Your task to perform on an android device: Go to ESPN.com Image 0: 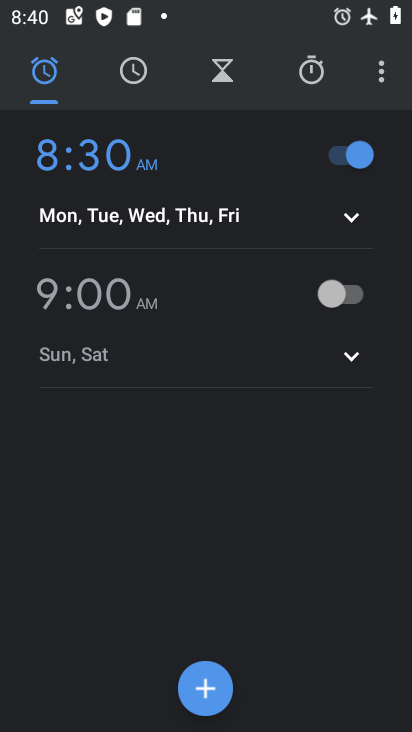
Step 0: press home button
Your task to perform on an android device: Go to ESPN.com Image 1: 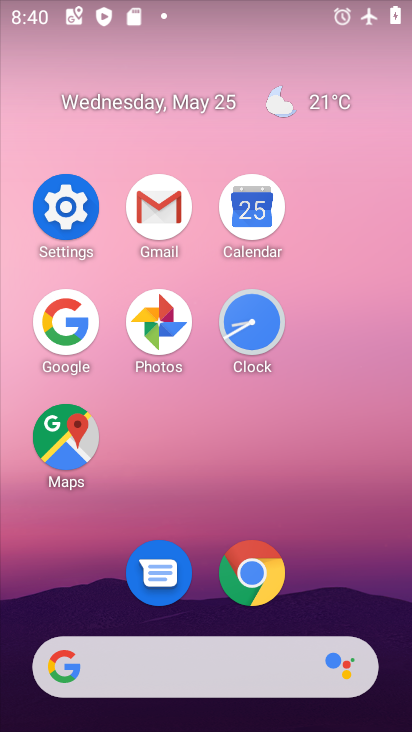
Step 1: click (273, 579)
Your task to perform on an android device: Go to ESPN.com Image 2: 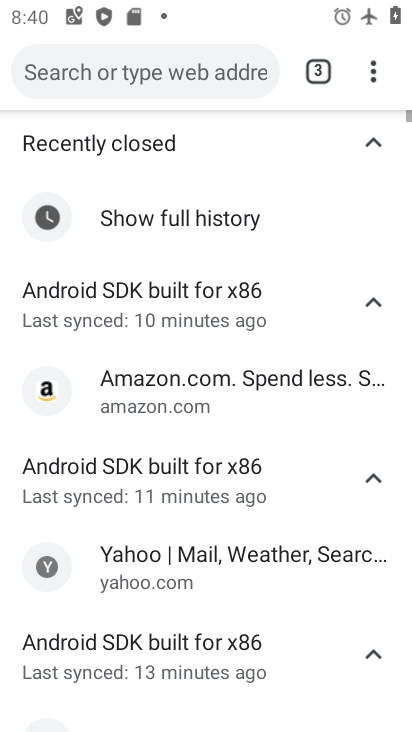
Step 2: click (309, 69)
Your task to perform on an android device: Go to ESPN.com Image 3: 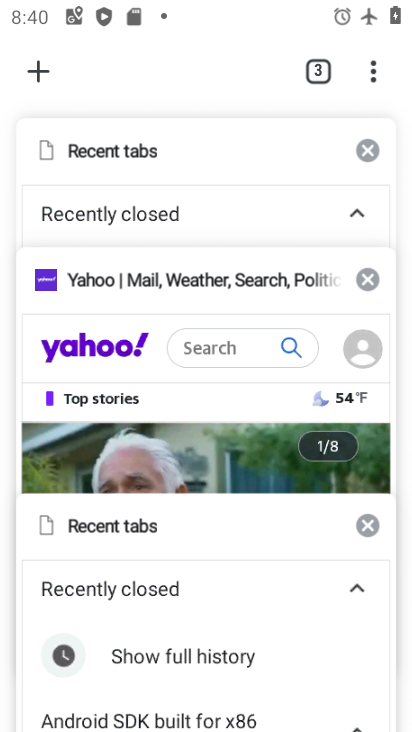
Step 3: click (56, 64)
Your task to perform on an android device: Go to ESPN.com Image 4: 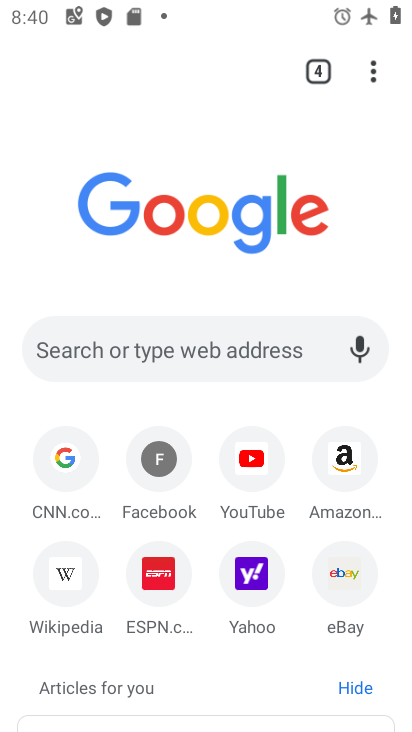
Step 4: click (169, 598)
Your task to perform on an android device: Go to ESPN.com Image 5: 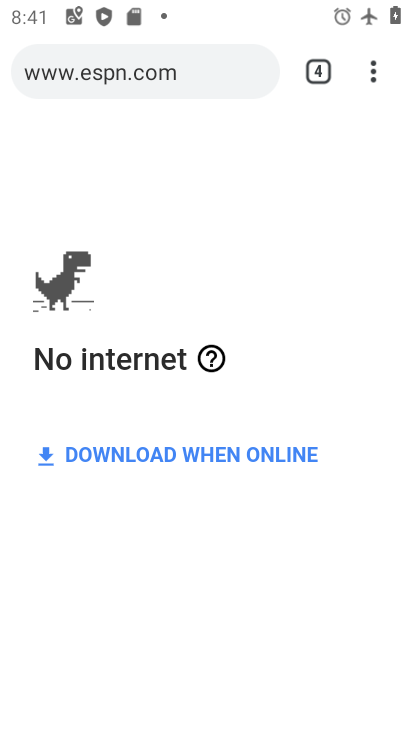
Step 5: task complete